Your task to perform on an android device: toggle pop-ups in chrome Image 0: 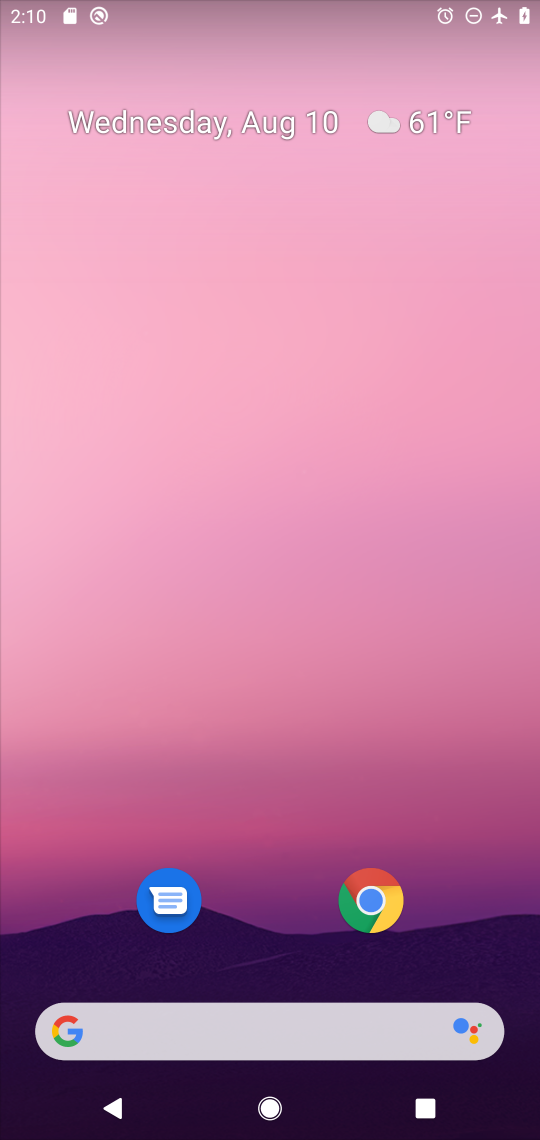
Step 0: click (374, 902)
Your task to perform on an android device: toggle pop-ups in chrome Image 1: 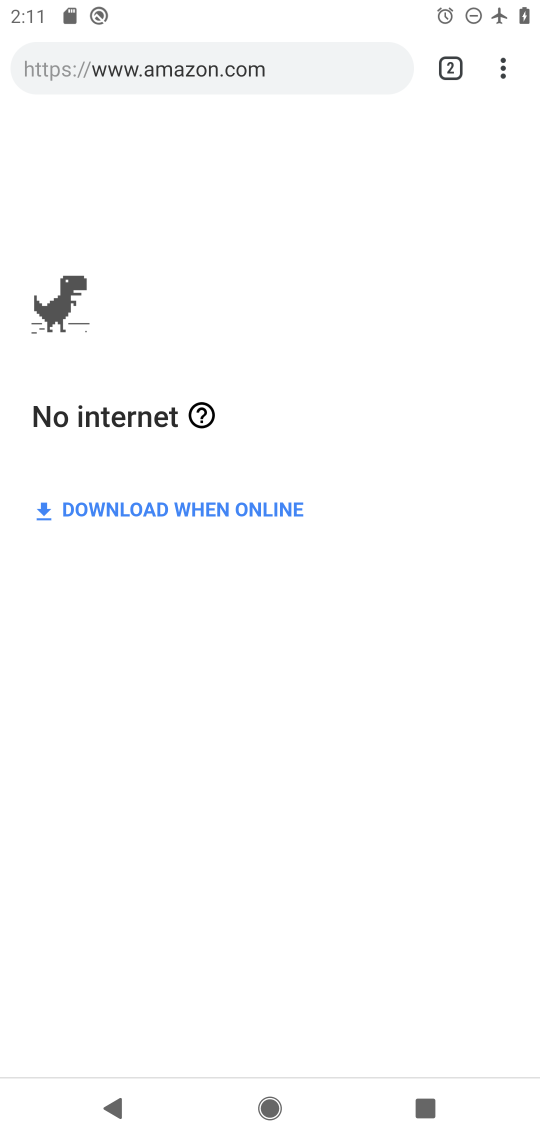
Step 1: click (503, 68)
Your task to perform on an android device: toggle pop-ups in chrome Image 2: 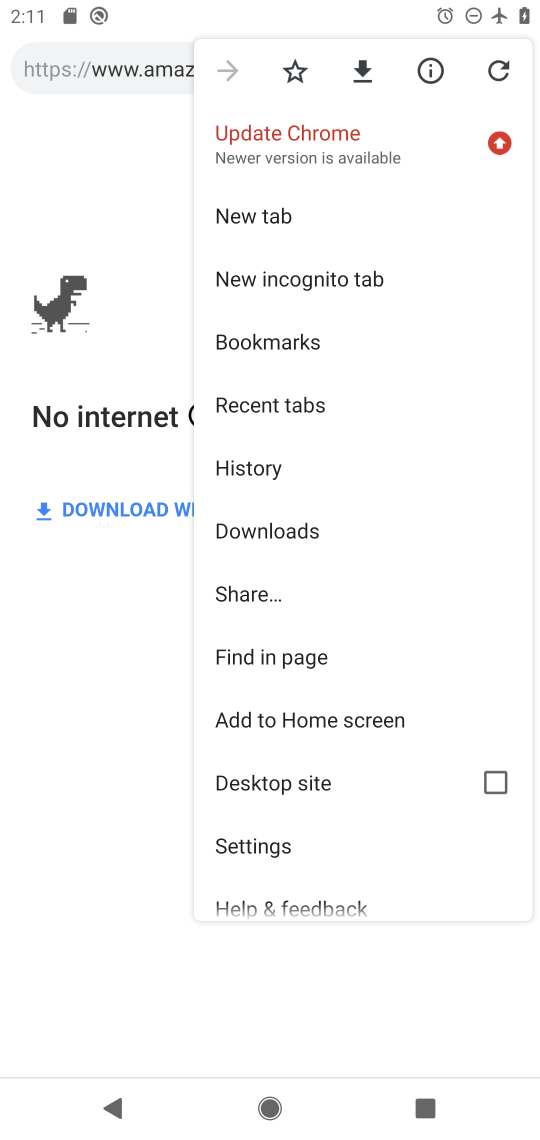
Step 2: click (295, 842)
Your task to perform on an android device: toggle pop-ups in chrome Image 3: 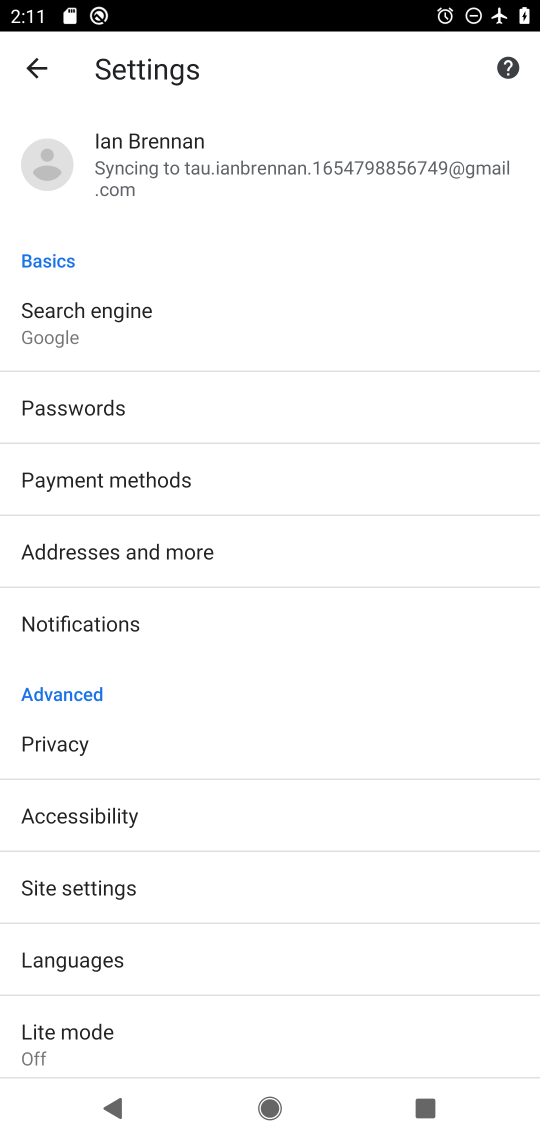
Step 3: drag from (332, 956) to (363, 472)
Your task to perform on an android device: toggle pop-ups in chrome Image 4: 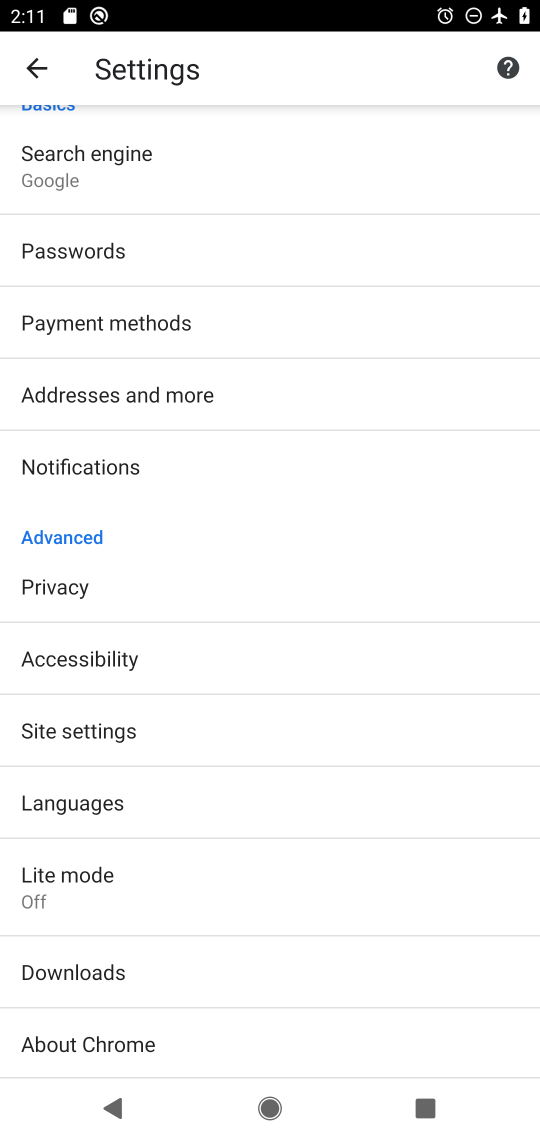
Step 4: click (135, 728)
Your task to perform on an android device: toggle pop-ups in chrome Image 5: 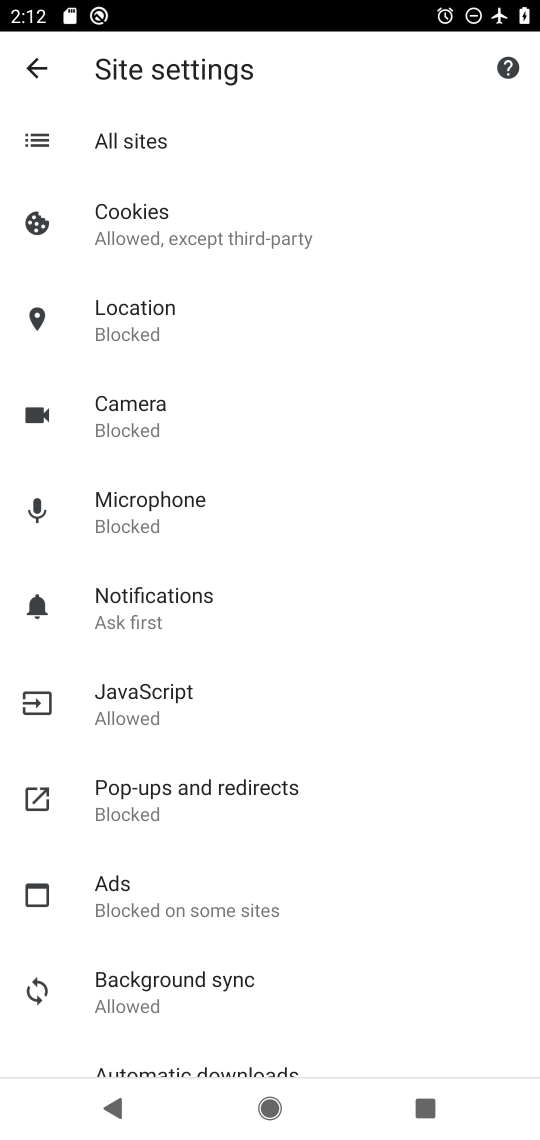
Step 5: click (218, 792)
Your task to perform on an android device: toggle pop-ups in chrome Image 6: 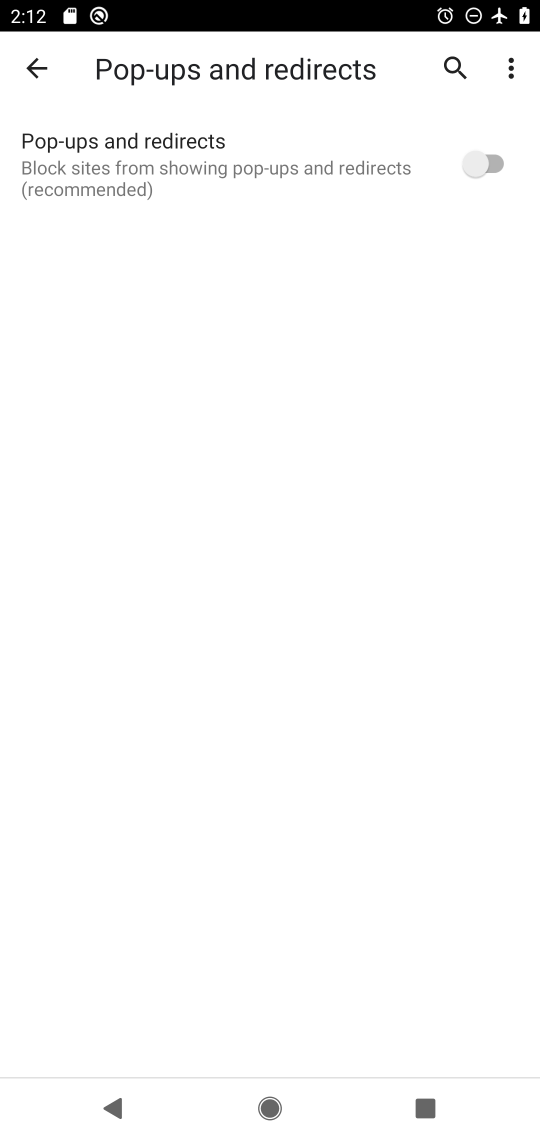
Step 6: click (482, 163)
Your task to perform on an android device: toggle pop-ups in chrome Image 7: 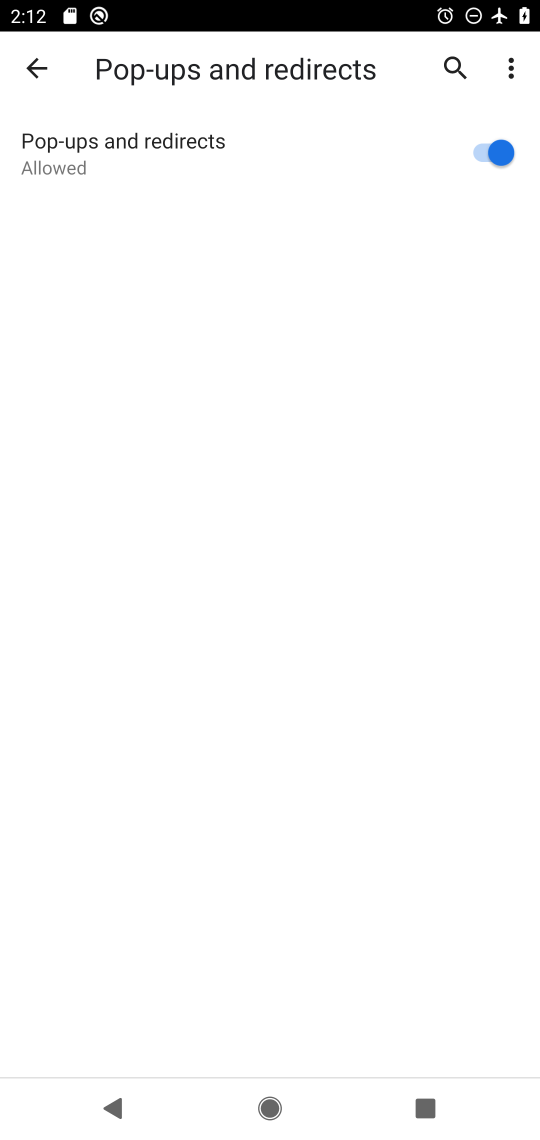
Step 7: task complete